Your task to perform on an android device: open a bookmark in the chrome app Image 0: 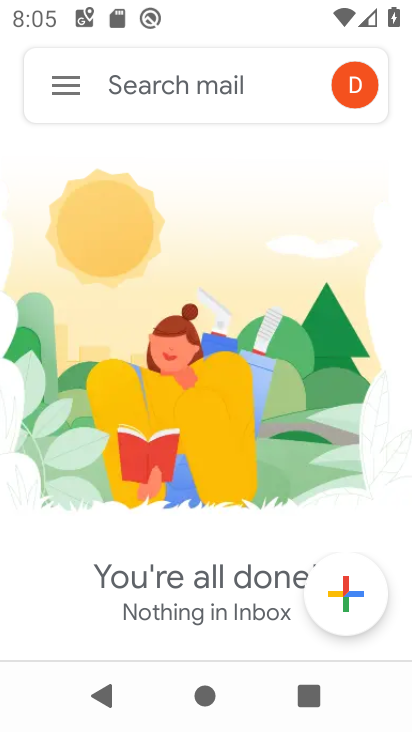
Step 0: press back button
Your task to perform on an android device: open a bookmark in the chrome app Image 1: 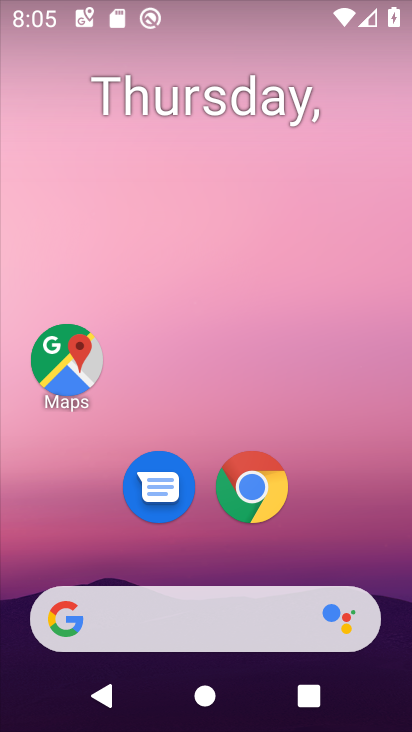
Step 1: click (254, 479)
Your task to perform on an android device: open a bookmark in the chrome app Image 2: 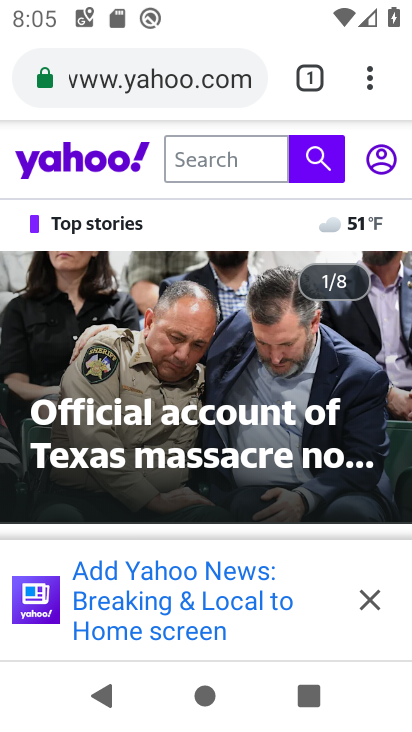
Step 2: drag from (369, 79) to (108, 300)
Your task to perform on an android device: open a bookmark in the chrome app Image 3: 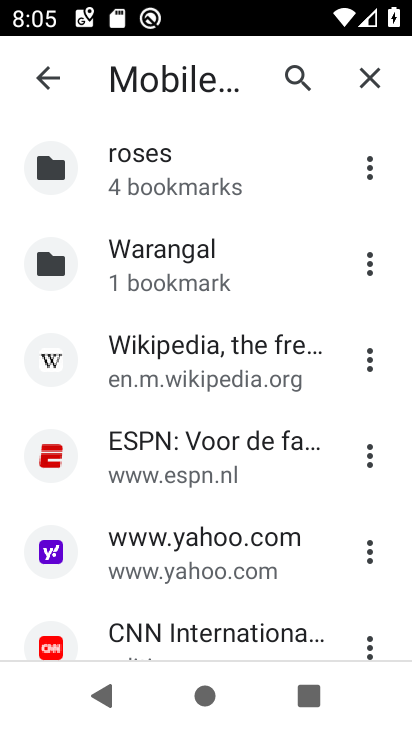
Step 3: click (180, 454)
Your task to perform on an android device: open a bookmark in the chrome app Image 4: 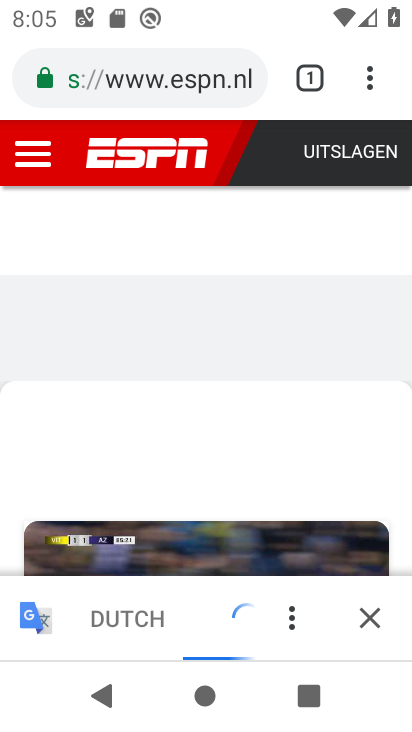
Step 4: task complete